Your task to perform on an android device: Open location settings Image 0: 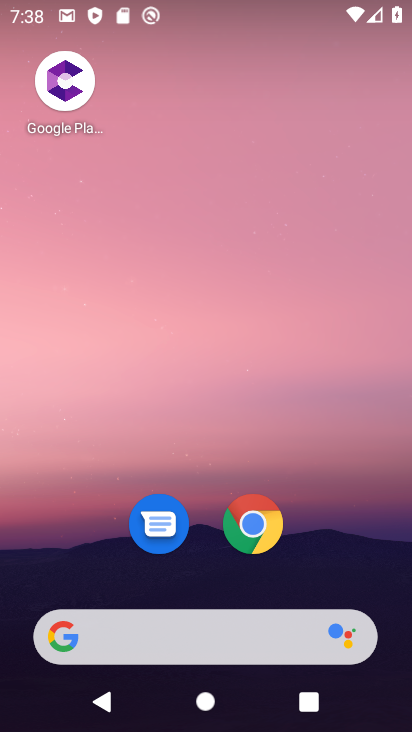
Step 0: drag from (336, 522) to (325, 8)
Your task to perform on an android device: Open location settings Image 1: 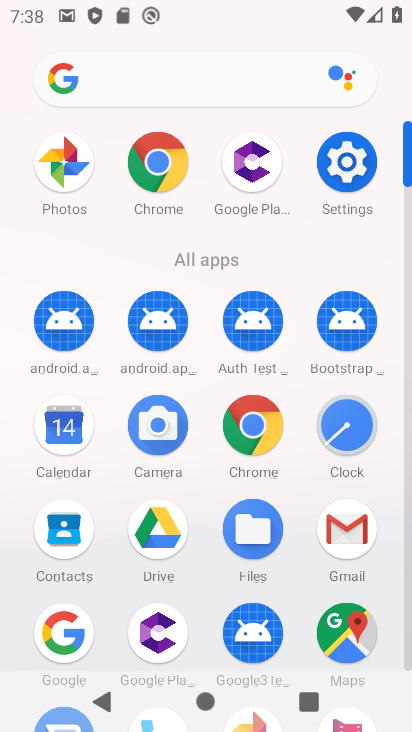
Step 1: click (343, 161)
Your task to perform on an android device: Open location settings Image 2: 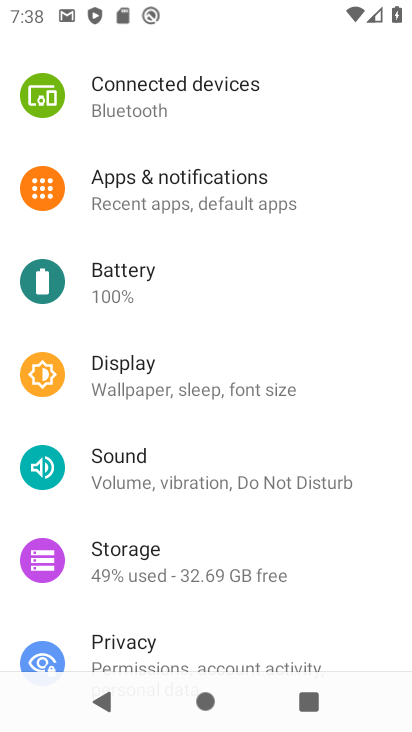
Step 2: drag from (230, 520) to (225, 114)
Your task to perform on an android device: Open location settings Image 3: 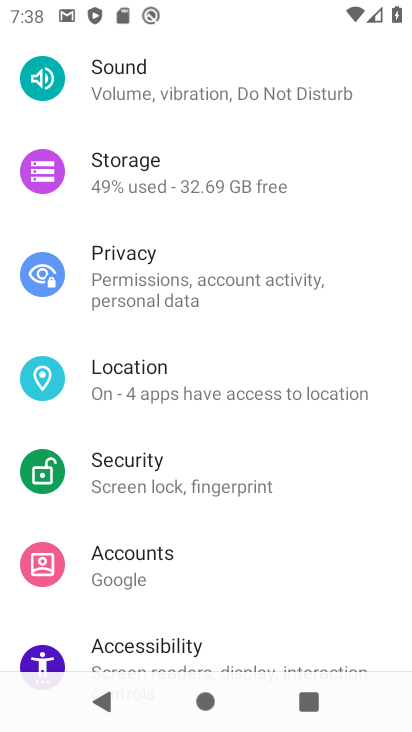
Step 3: click (186, 396)
Your task to perform on an android device: Open location settings Image 4: 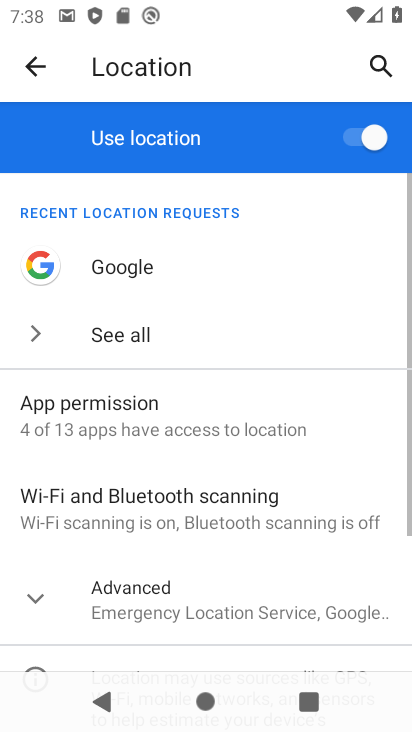
Step 4: task complete